Your task to perform on an android device: manage bookmarks in the chrome app Image 0: 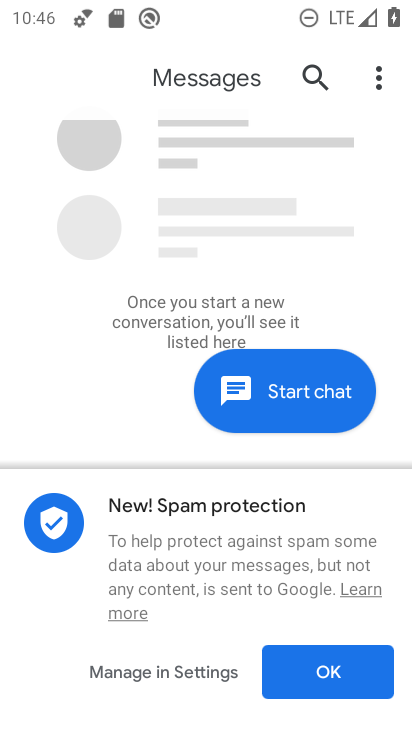
Step 0: press home button
Your task to perform on an android device: manage bookmarks in the chrome app Image 1: 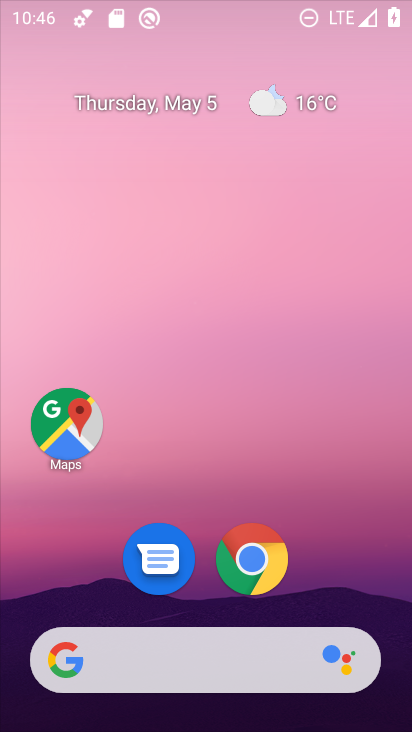
Step 1: drag from (380, 613) to (228, 36)
Your task to perform on an android device: manage bookmarks in the chrome app Image 2: 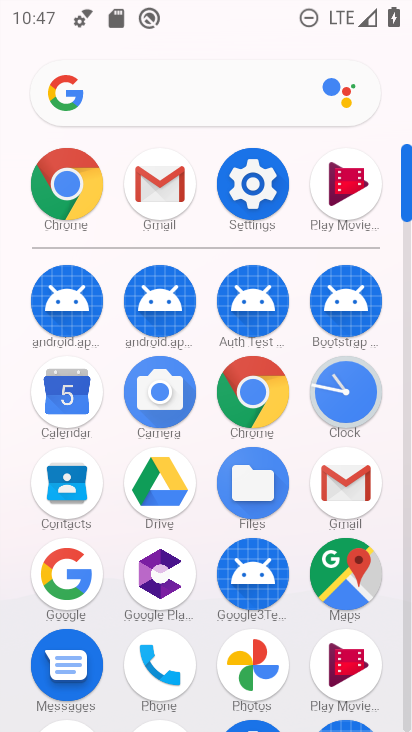
Step 2: click (281, 400)
Your task to perform on an android device: manage bookmarks in the chrome app Image 3: 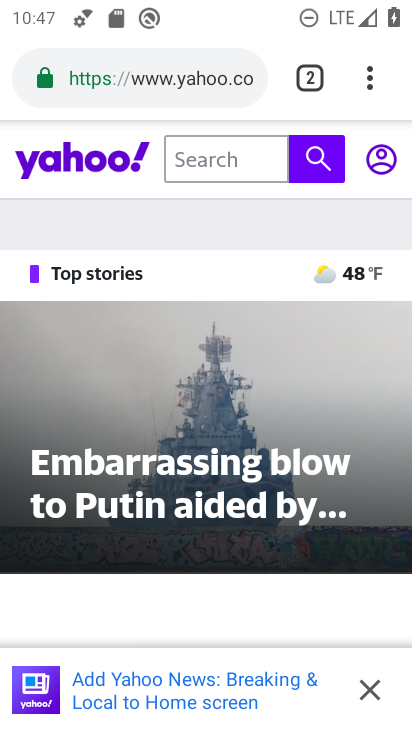
Step 3: press back button
Your task to perform on an android device: manage bookmarks in the chrome app Image 4: 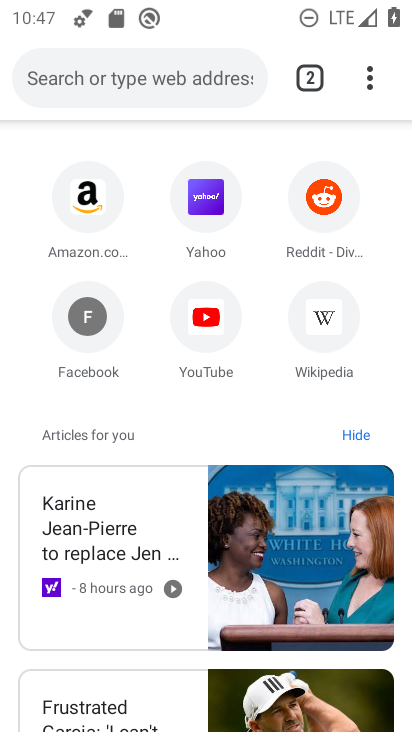
Step 4: click (364, 67)
Your task to perform on an android device: manage bookmarks in the chrome app Image 5: 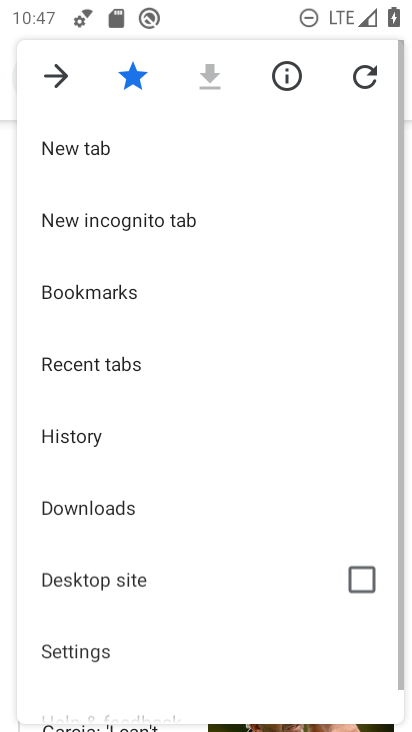
Step 5: click (364, 67)
Your task to perform on an android device: manage bookmarks in the chrome app Image 6: 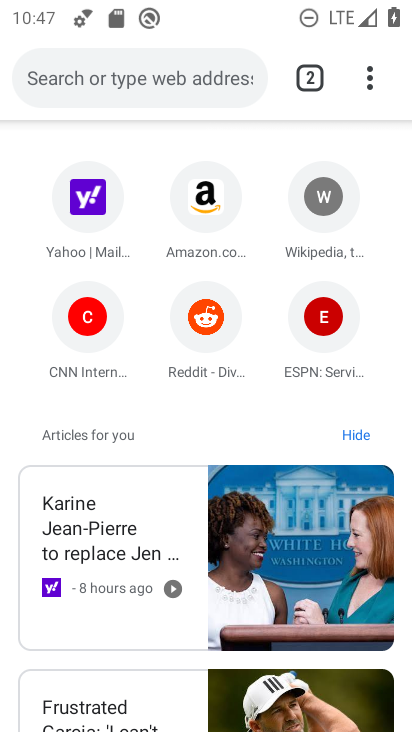
Step 6: task complete